Your task to perform on an android device: open chrome and create a bookmark for the current page Image 0: 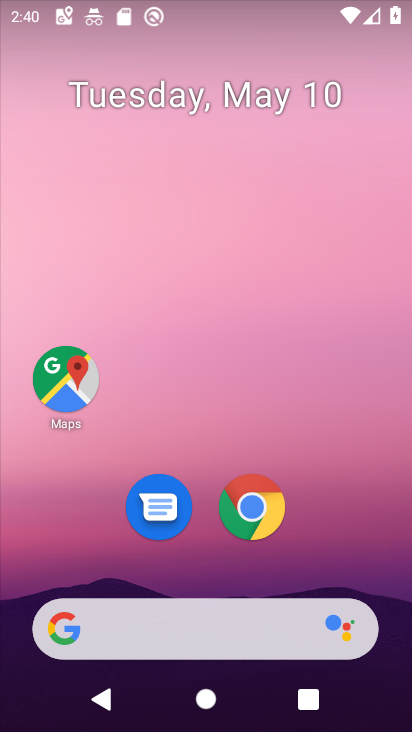
Step 0: click (254, 506)
Your task to perform on an android device: open chrome and create a bookmark for the current page Image 1: 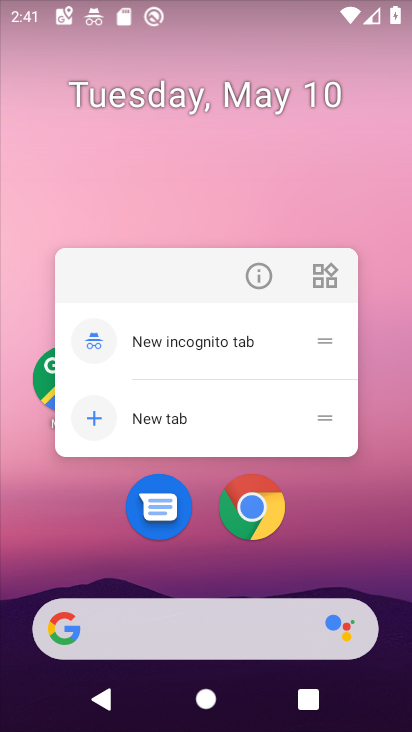
Step 1: click (254, 284)
Your task to perform on an android device: open chrome and create a bookmark for the current page Image 2: 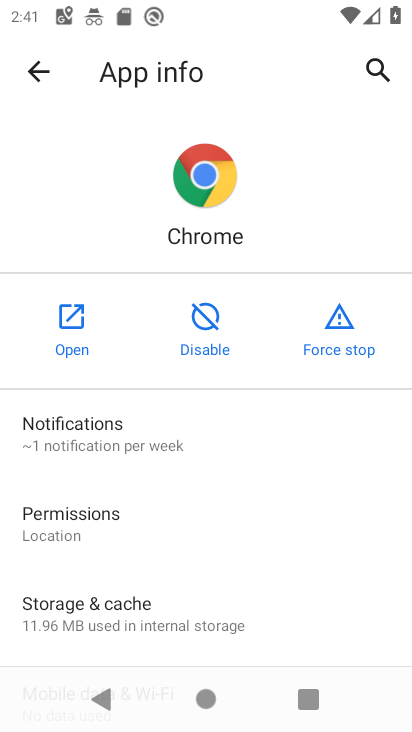
Step 2: click (80, 344)
Your task to perform on an android device: open chrome and create a bookmark for the current page Image 3: 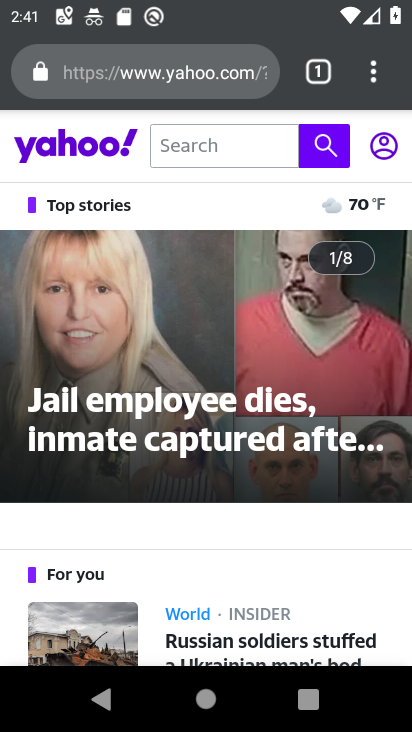
Step 3: click (370, 78)
Your task to perform on an android device: open chrome and create a bookmark for the current page Image 4: 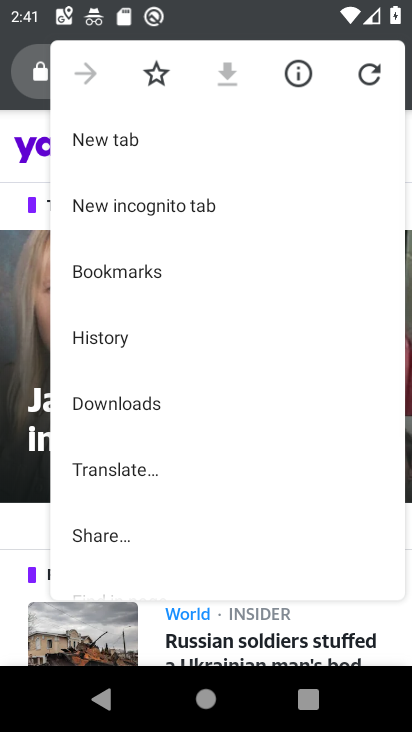
Step 4: click (155, 75)
Your task to perform on an android device: open chrome and create a bookmark for the current page Image 5: 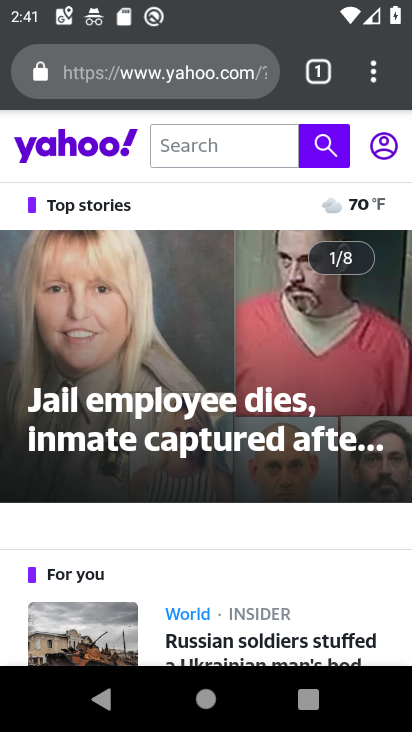
Step 5: task complete